Your task to perform on an android device: When is my next meeting? Image 0: 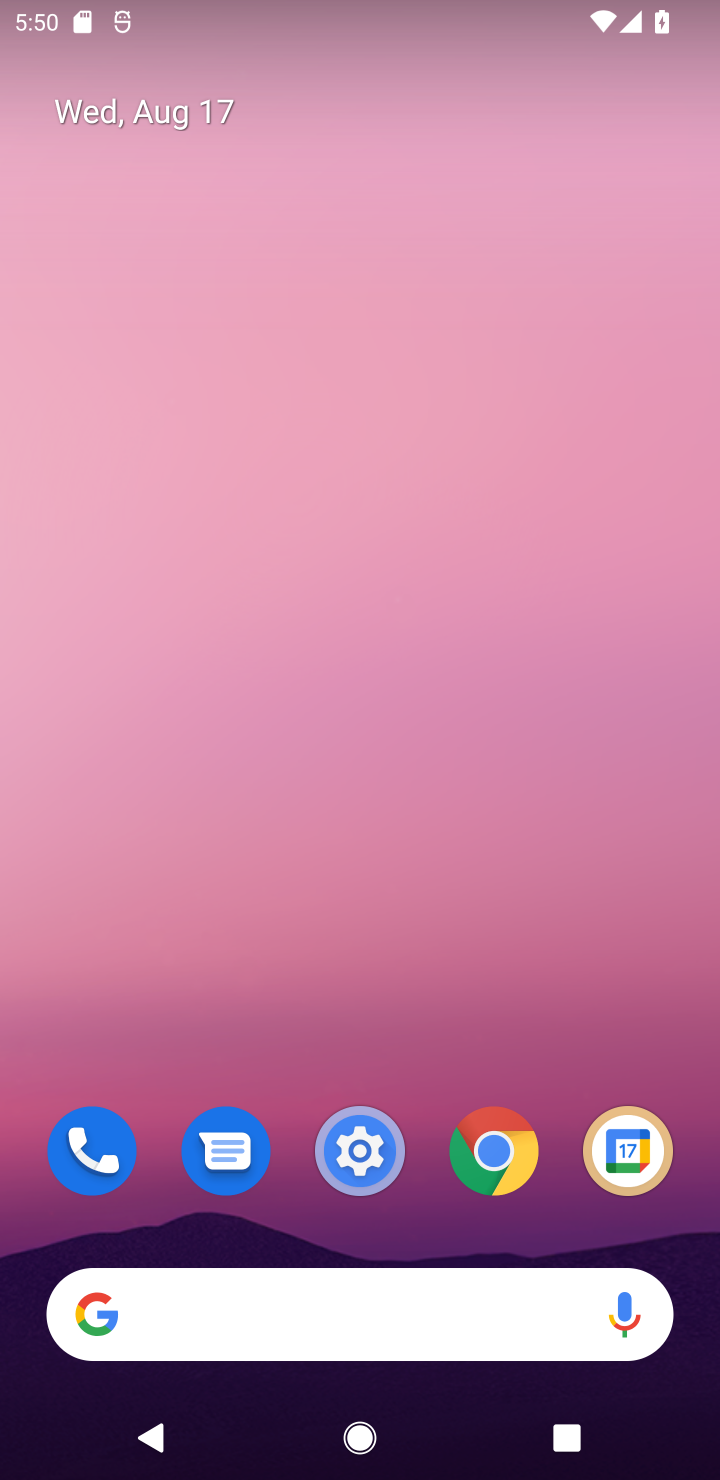
Step 0: click (317, 1195)
Your task to perform on an android device: When is my next meeting? Image 1: 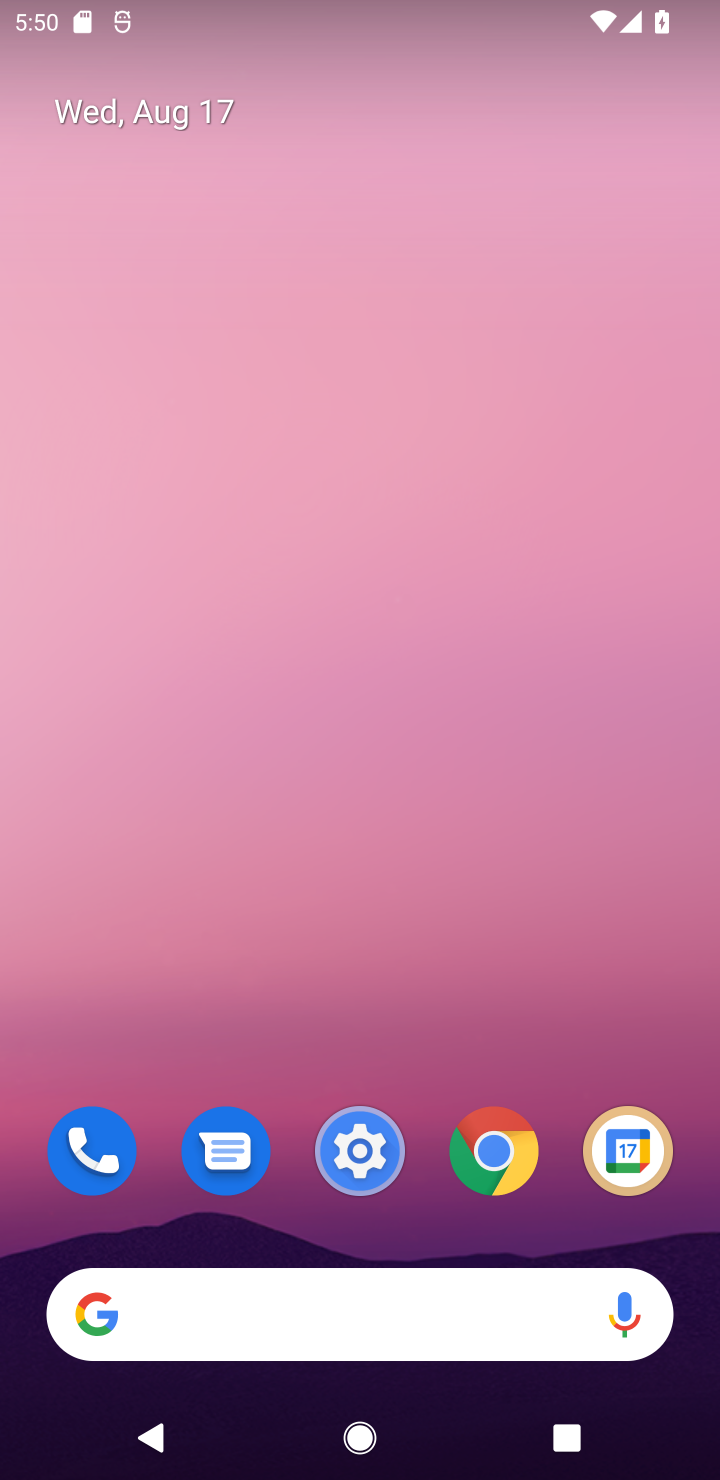
Step 1: task complete